Your task to perform on an android device: add a contact in the contacts app Image 0: 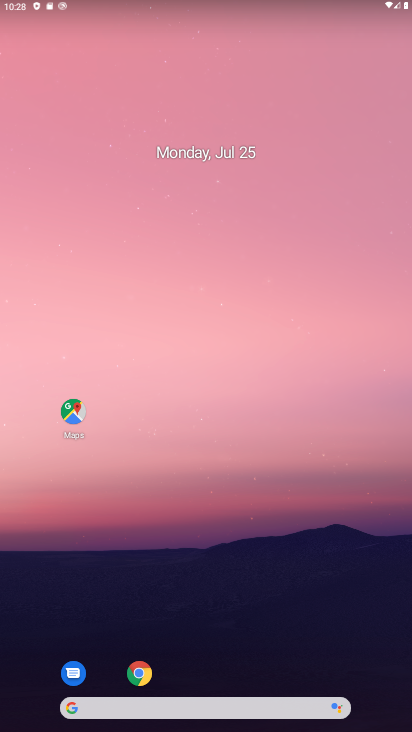
Step 0: press home button
Your task to perform on an android device: add a contact in the contacts app Image 1: 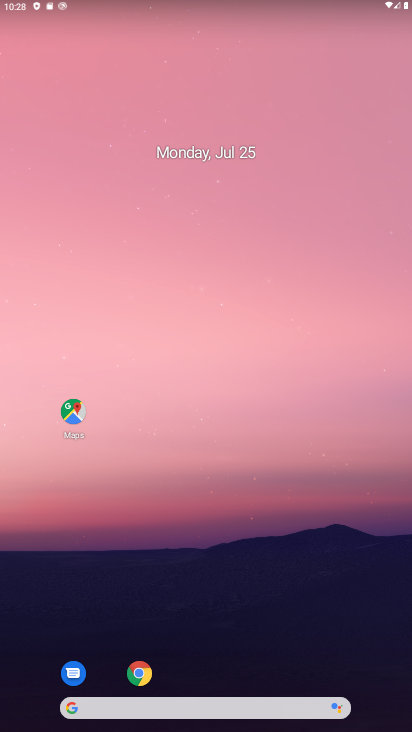
Step 1: drag from (204, 680) to (263, 129)
Your task to perform on an android device: add a contact in the contacts app Image 2: 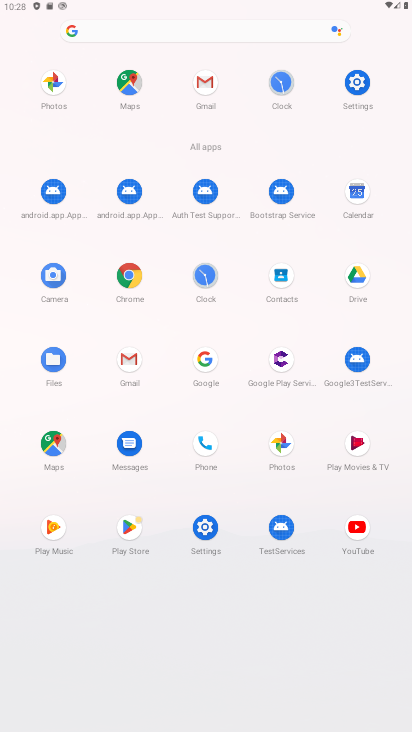
Step 2: click (279, 274)
Your task to perform on an android device: add a contact in the contacts app Image 3: 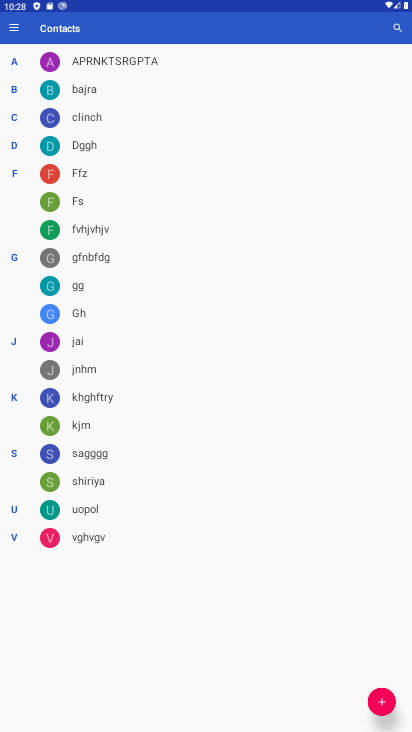
Step 3: click (377, 696)
Your task to perform on an android device: add a contact in the contacts app Image 4: 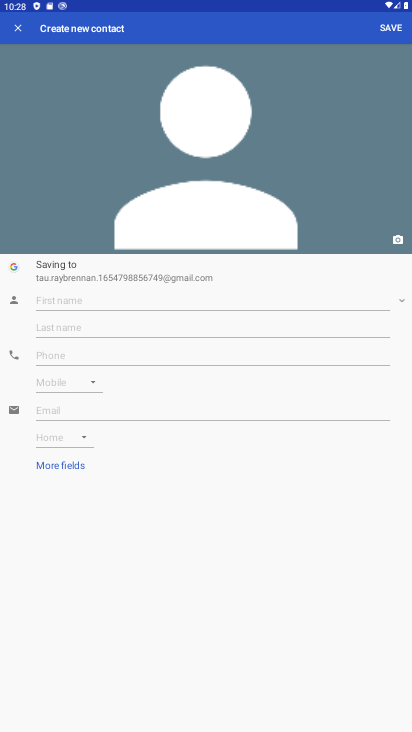
Step 4: click (66, 292)
Your task to perform on an android device: add a contact in the contacts app Image 5: 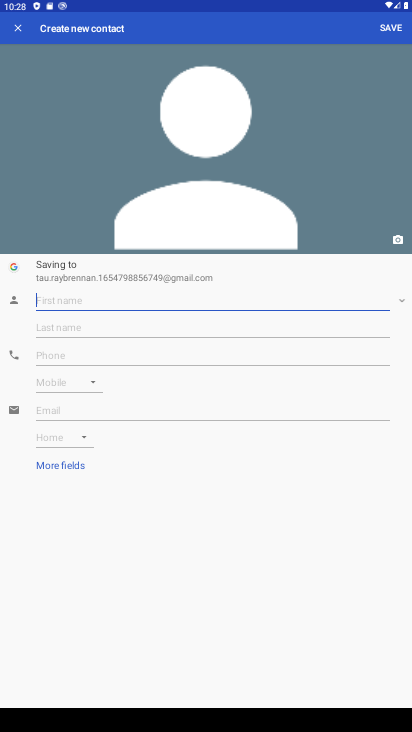
Step 5: type "ghddtsyh"
Your task to perform on an android device: add a contact in the contacts app Image 6: 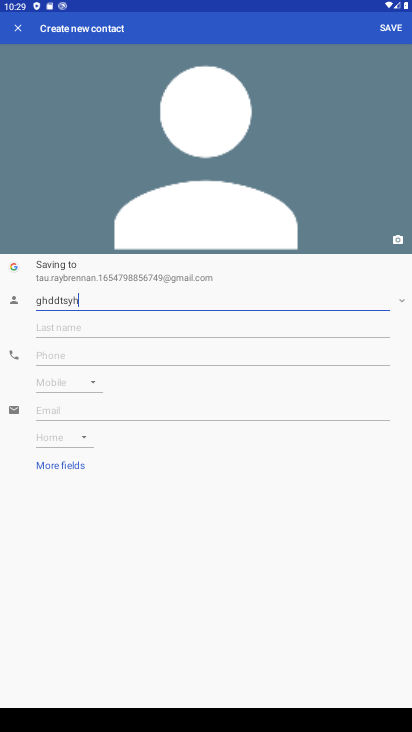
Step 6: click (389, 20)
Your task to perform on an android device: add a contact in the contacts app Image 7: 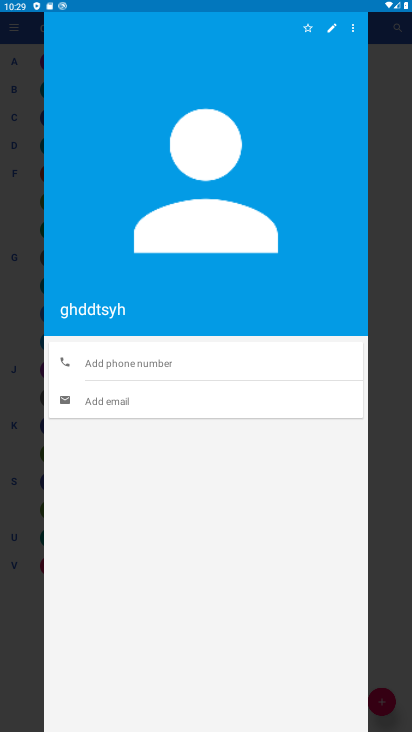
Step 7: task complete